Your task to perform on an android device: change the clock display to show seconds Image 0: 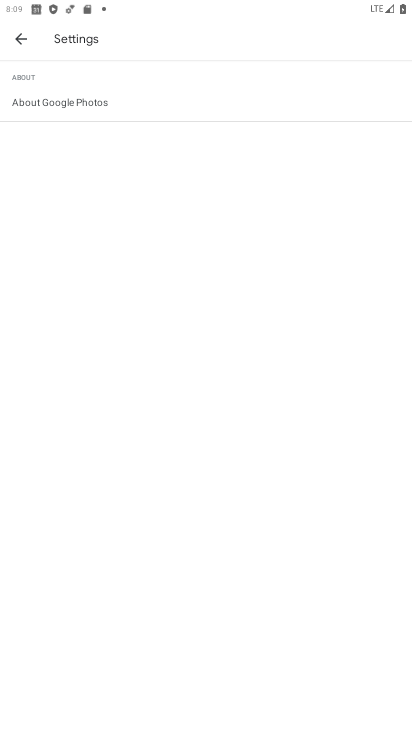
Step 0: press home button
Your task to perform on an android device: change the clock display to show seconds Image 1: 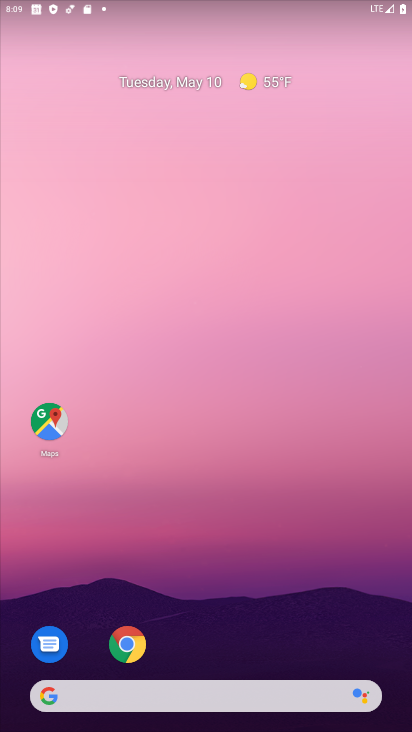
Step 1: drag from (195, 678) to (193, 184)
Your task to perform on an android device: change the clock display to show seconds Image 2: 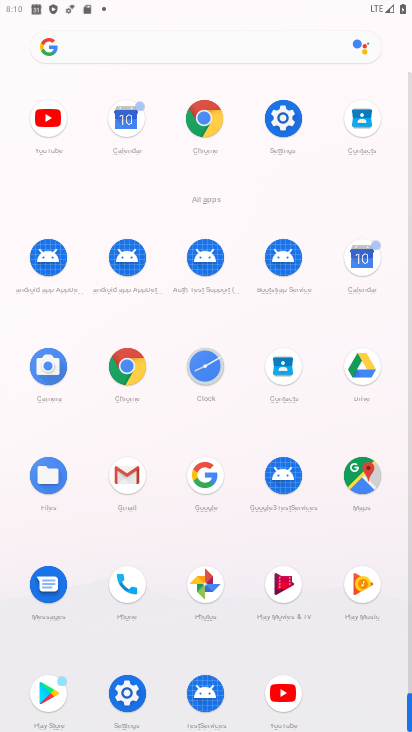
Step 2: click (204, 381)
Your task to perform on an android device: change the clock display to show seconds Image 3: 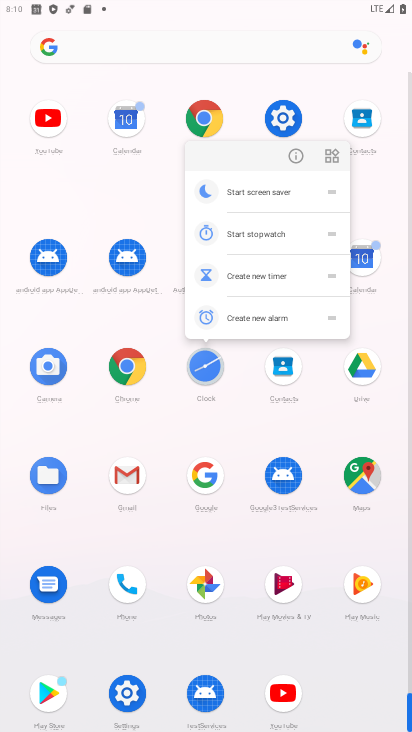
Step 3: click (204, 381)
Your task to perform on an android device: change the clock display to show seconds Image 4: 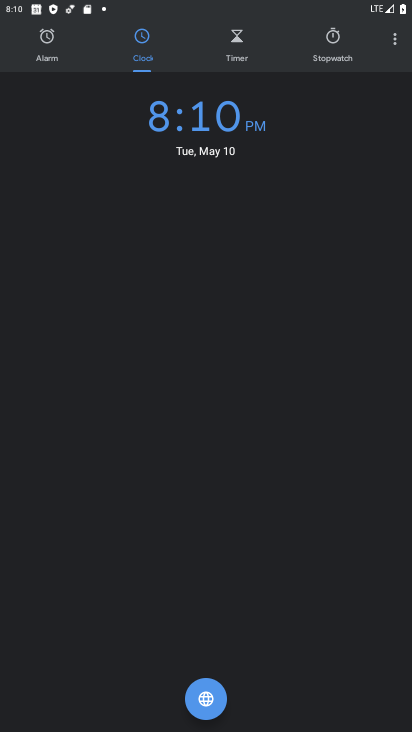
Step 4: click (391, 41)
Your task to perform on an android device: change the clock display to show seconds Image 5: 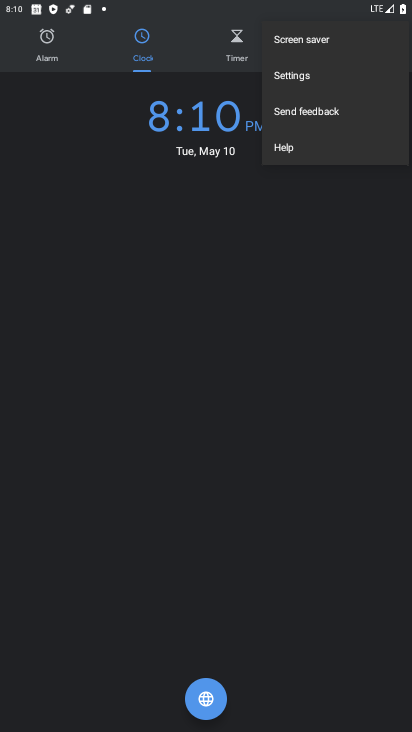
Step 5: click (286, 77)
Your task to perform on an android device: change the clock display to show seconds Image 6: 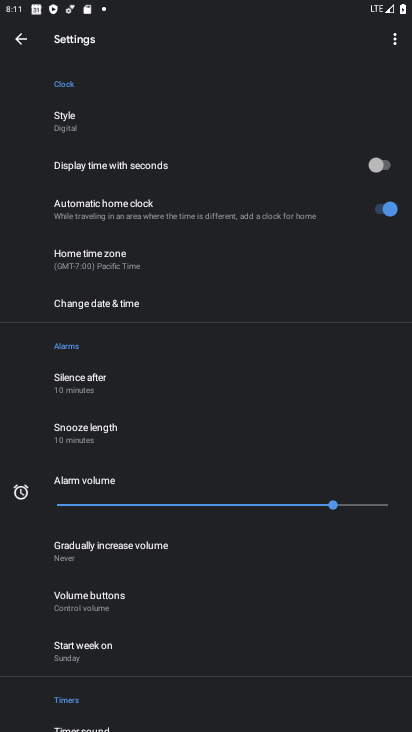
Step 6: click (392, 167)
Your task to perform on an android device: change the clock display to show seconds Image 7: 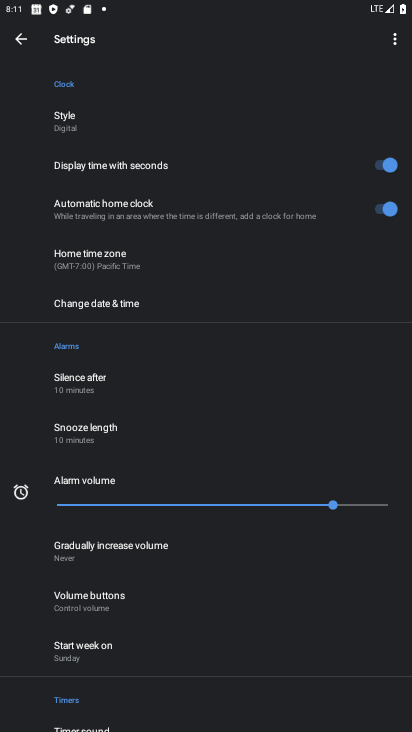
Step 7: task complete